Your task to perform on an android device: Go to privacy settings Image 0: 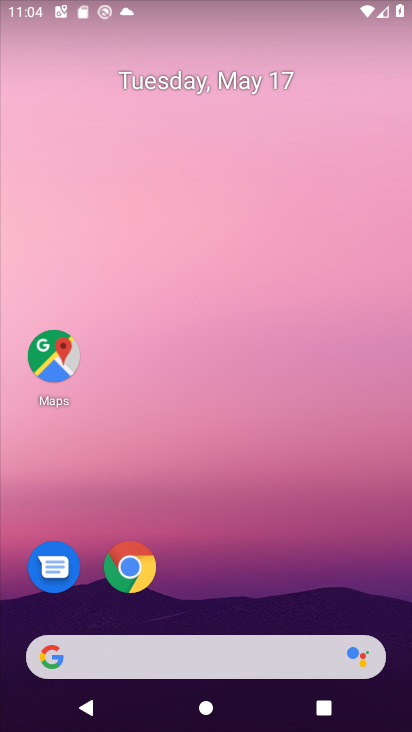
Step 0: click (136, 571)
Your task to perform on an android device: Go to privacy settings Image 1: 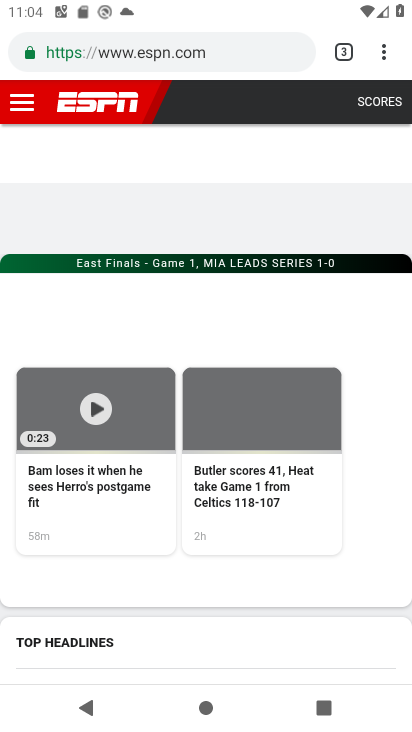
Step 1: drag from (386, 53) to (227, 617)
Your task to perform on an android device: Go to privacy settings Image 2: 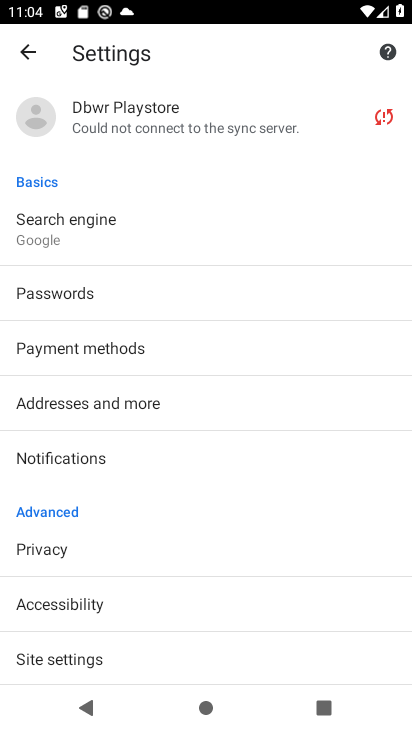
Step 2: click (41, 551)
Your task to perform on an android device: Go to privacy settings Image 3: 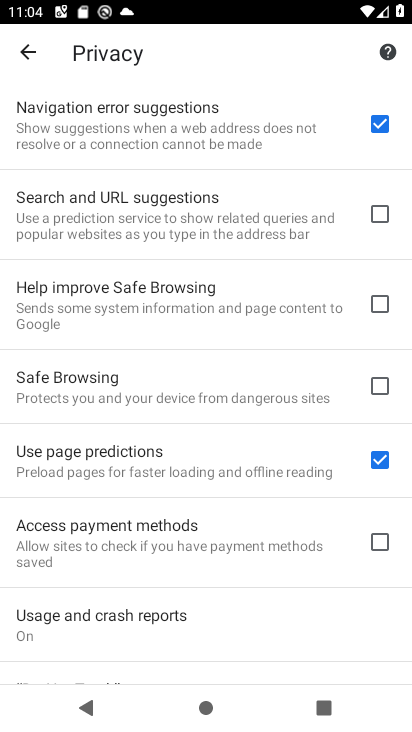
Step 3: task complete